Your task to perform on an android device: Go to settings Image 0: 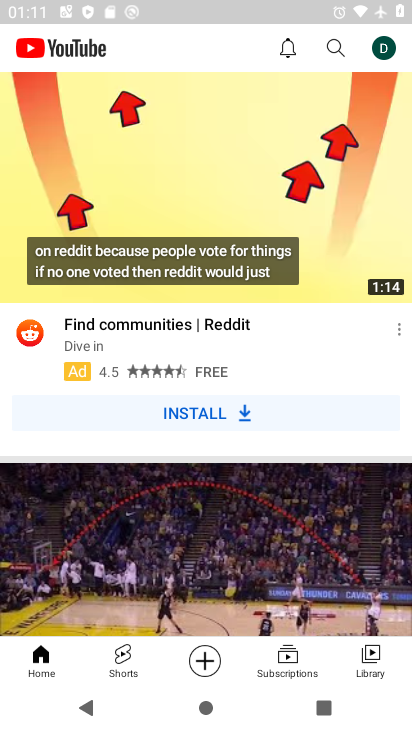
Step 0: press home button
Your task to perform on an android device: Go to settings Image 1: 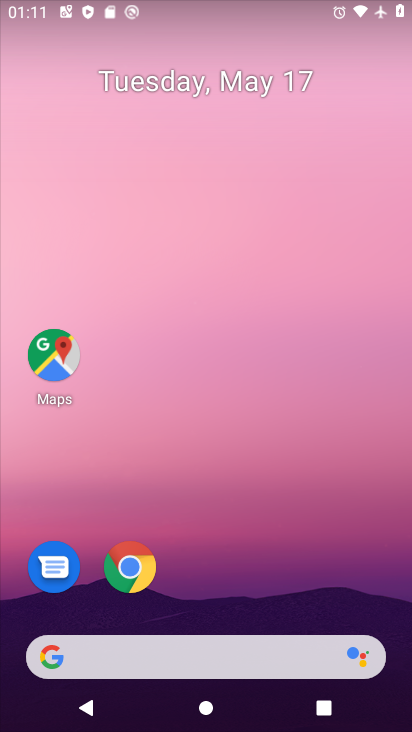
Step 1: drag from (239, 436) to (177, 100)
Your task to perform on an android device: Go to settings Image 2: 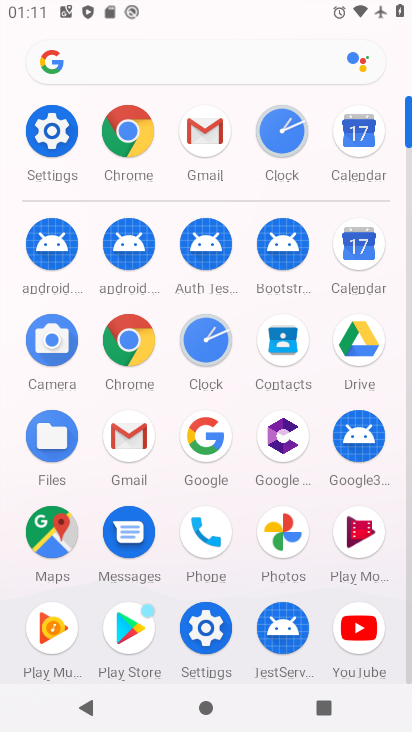
Step 2: click (38, 121)
Your task to perform on an android device: Go to settings Image 3: 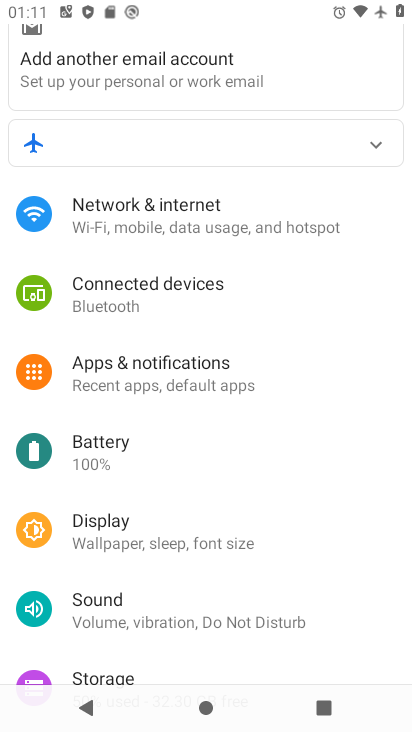
Step 3: task complete